Your task to perform on an android device: allow cookies in the chrome app Image 0: 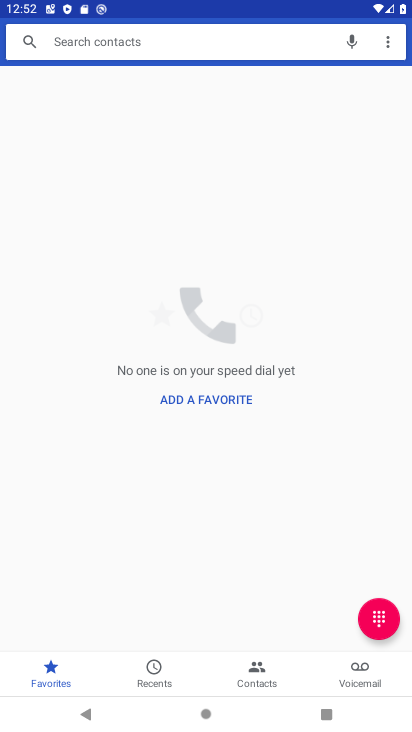
Step 0: press home button
Your task to perform on an android device: allow cookies in the chrome app Image 1: 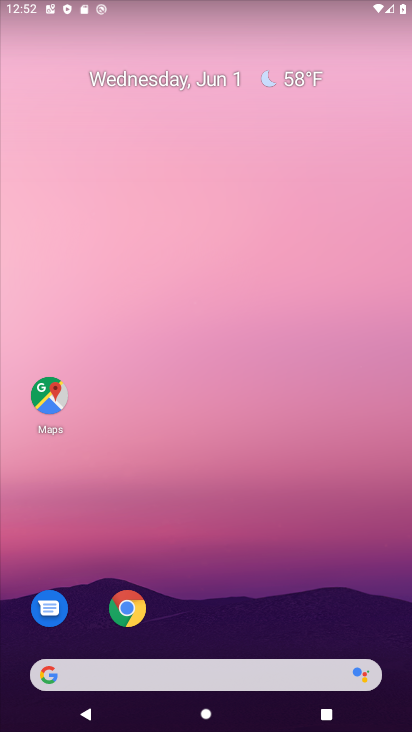
Step 1: click (126, 624)
Your task to perform on an android device: allow cookies in the chrome app Image 2: 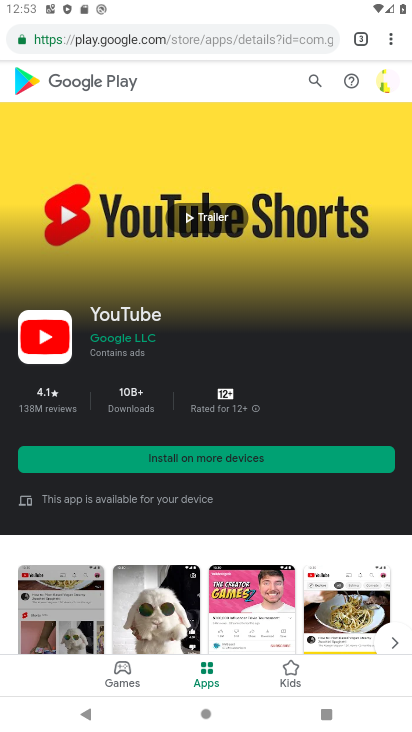
Step 2: click (396, 31)
Your task to perform on an android device: allow cookies in the chrome app Image 3: 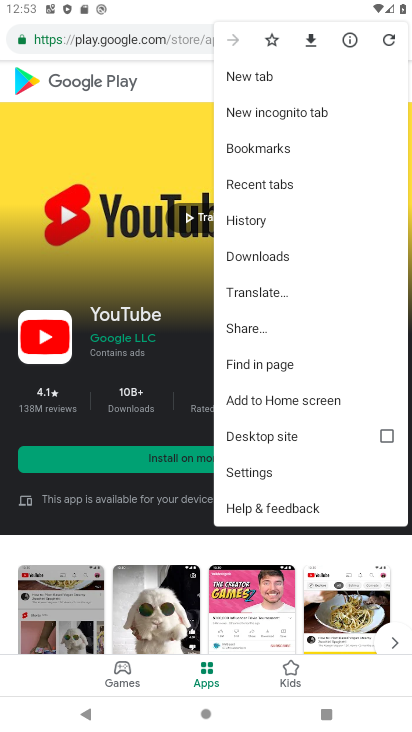
Step 3: click (273, 461)
Your task to perform on an android device: allow cookies in the chrome app Image 4: 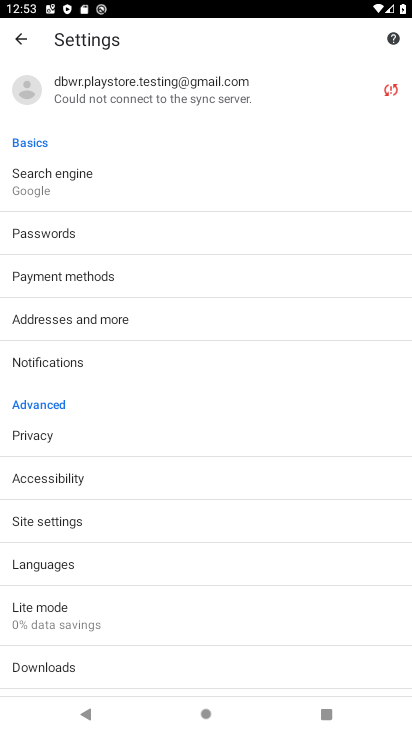
Step 4: click (78, 526)
Your task to perform on an android device: allow cookies in the chrome app Image 5: 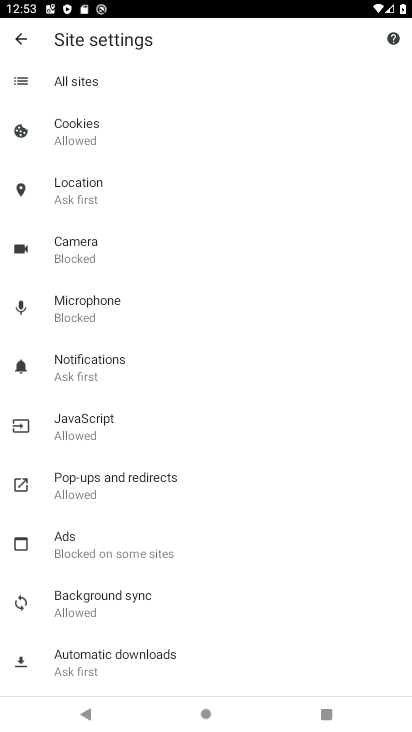
Step 5: click (184, 143)
Your task to perform on an android device: allow cookies in the chrome app Image 6: 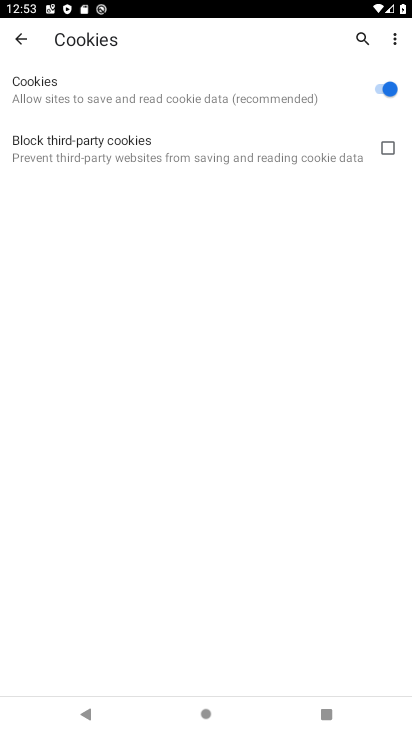
Step 6: task complete